Your task to perform on an android device: Open Google Chrome and open the bookmarks view Image 0: 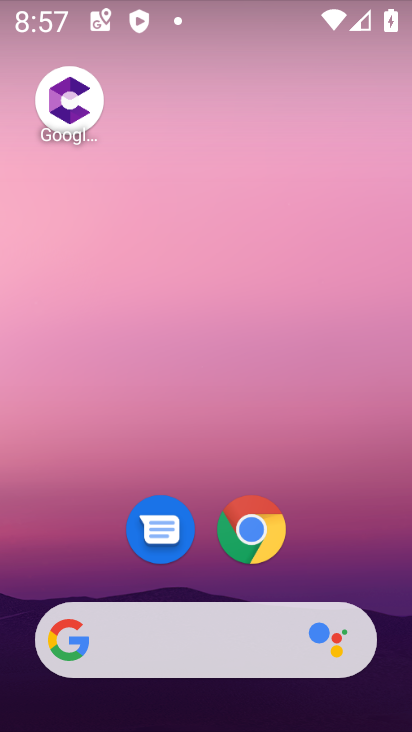
Step 0: drag from (369, 543) to (357, 174)
Your task to perform on an android device: Open Google Chrome and open the bookmarks view Image 1: 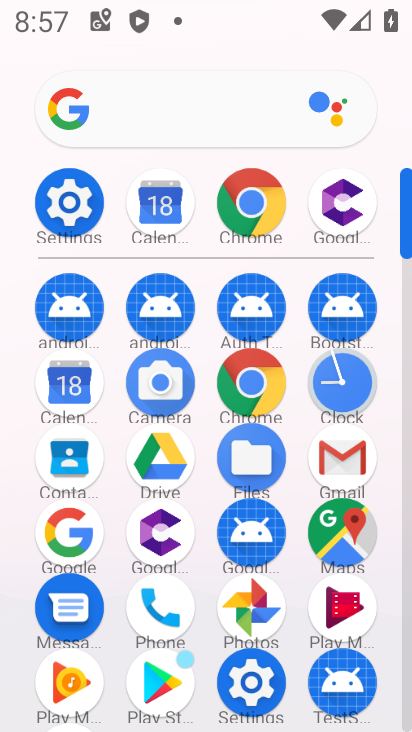
Step 1: click (262, 386)
Your task to perform on an android device: Open Google Chrome and open the bookmarks view Image 2: 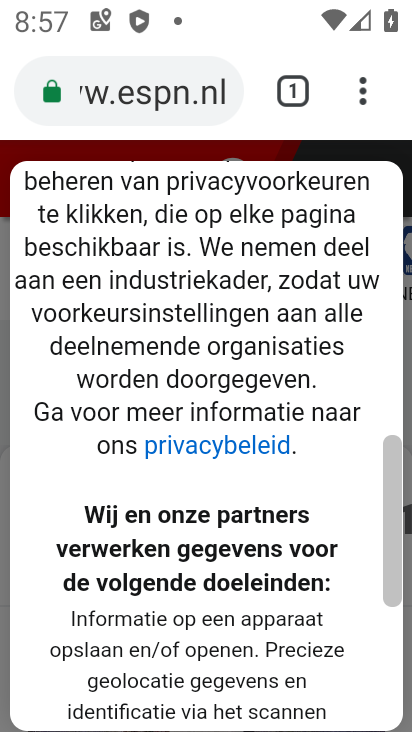
Step 2: click (359, 96)
Your task to perform on an android device: Open Google Chrome and open the bookmarks view Image 3: 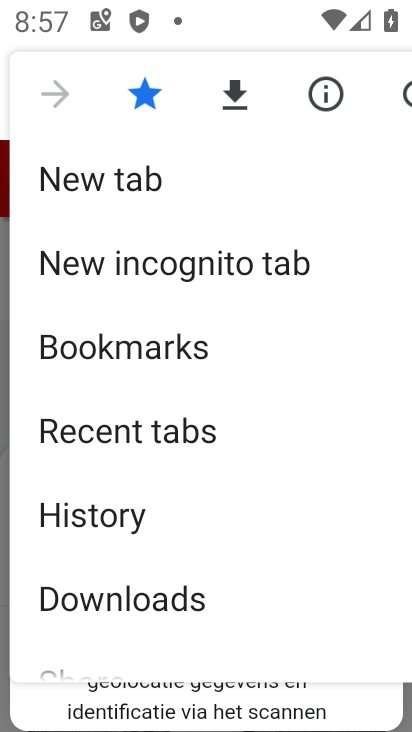
Step 3: click (198, 371)
Your task to perform on an android device: Open Google Chrome and open the bookmarks view Image 4: 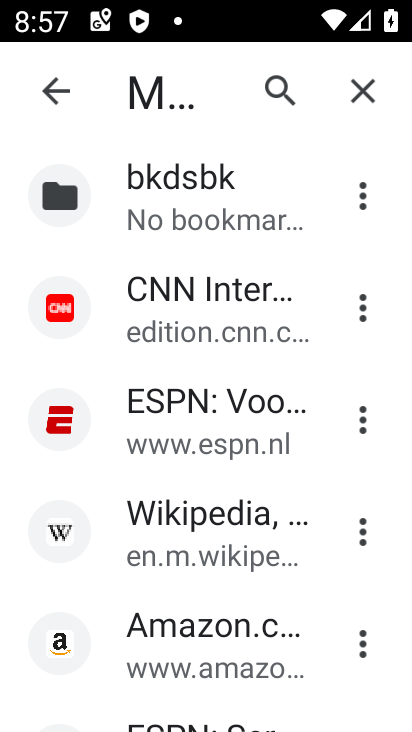
Step 4: task complete